Your task to perform on an android device: Open Youtube and go to "Your channel" Image 0: 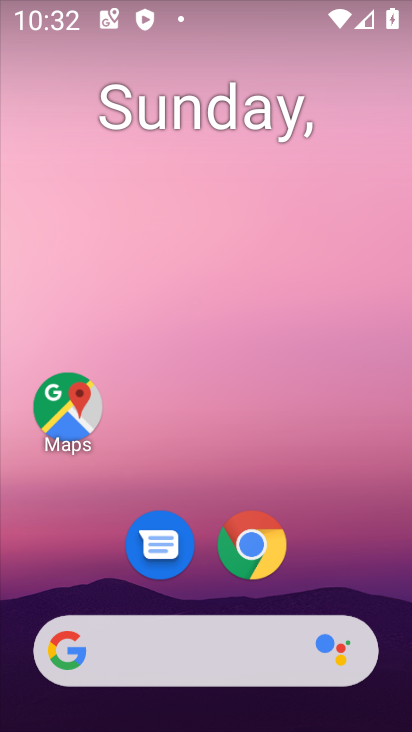
Step 0: drag from (75, 604) to (225, 125)
Your task to perform on an android device: Open Youtube and go to "Your channel" Image 1: 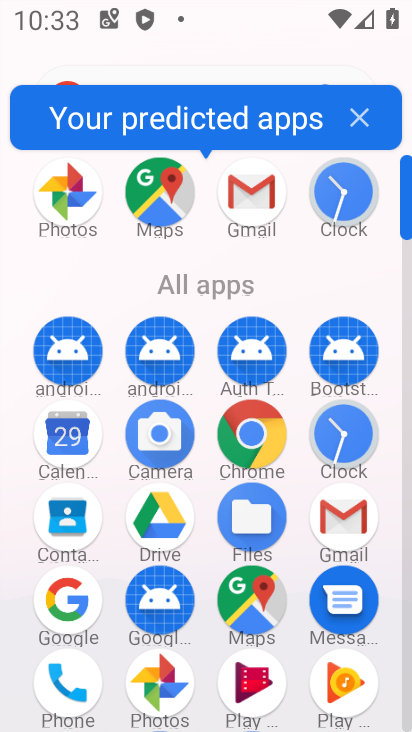
Step 1: drag from (80, 680) to (217, 244)
Your task to perform on an android device: Open Youtube and go to "Your channel" Image 2: 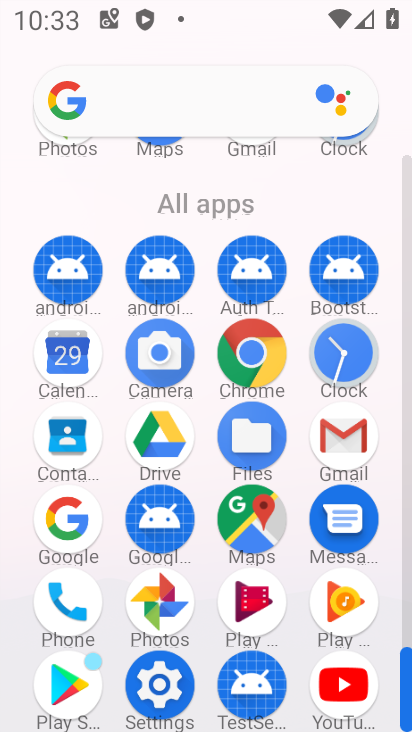
Step 2: click (351, 699)
Your task to perform on an android device: Open Youtube and go to "Your channel" Image 3: 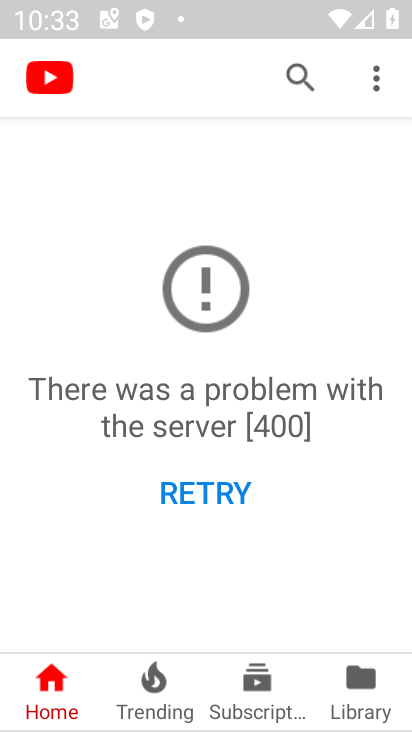
Step 3: click (384, 695)
Your task to perform on an android device: Open Youtube and go to "Your channel" Image 4: 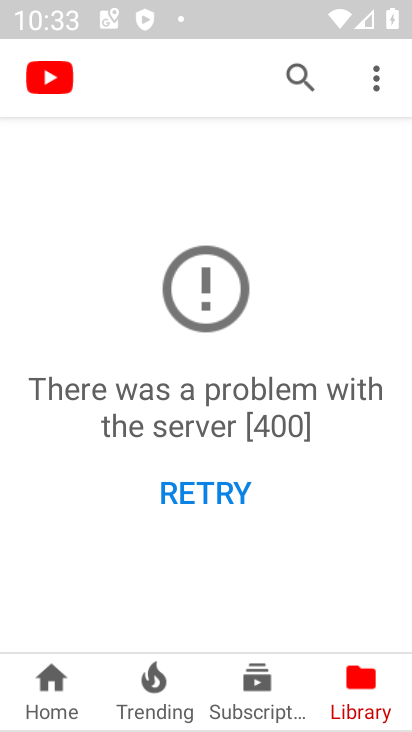
Step 4: task complete